Your task to perform on an android device: Search for razer kraken on bestbuy.com, select the first entry, and add it to the cart. Image 0: 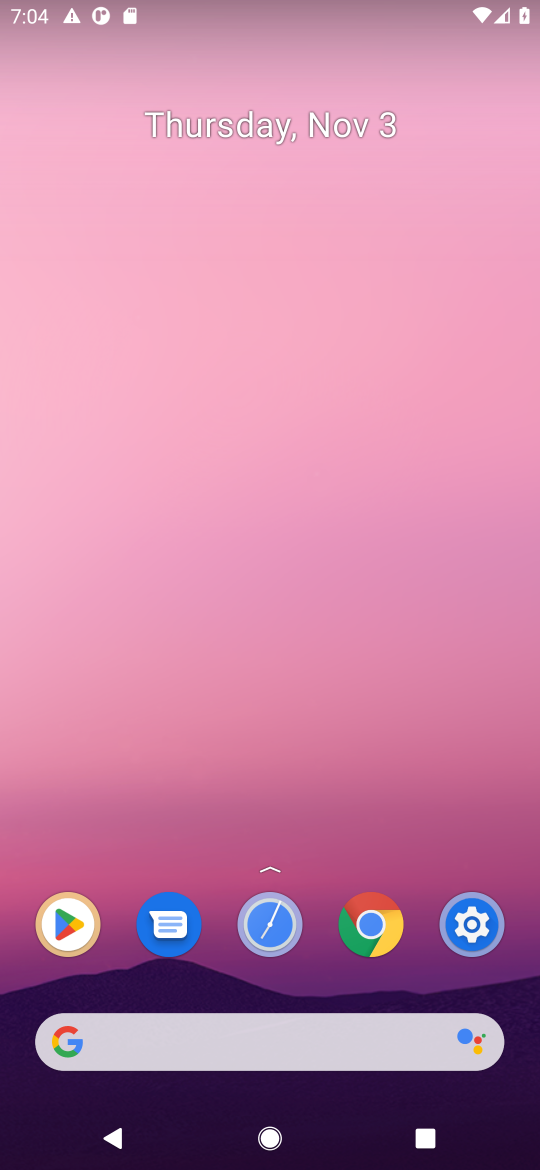
Step 0: click (270, 1036)
Your task to perform on an android device: Search for razer kraken on bestbuy.com, select the first entry, and add it to the cart. Image 1: 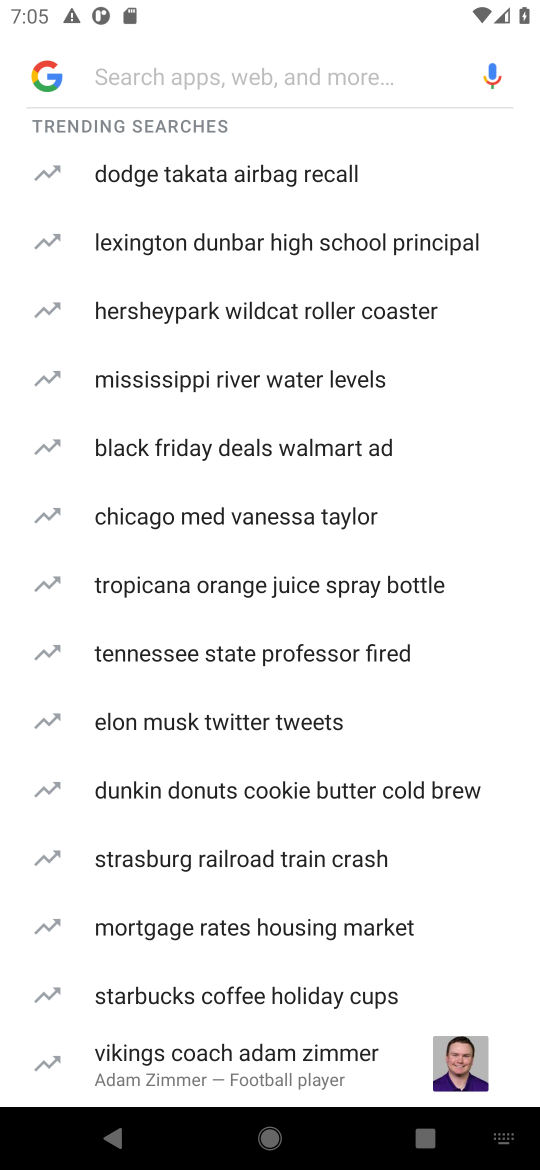
Step 1: type "bestbuy.com"
Your task to perform on an android device: Search for razer kraken on bestbuy.com, select the first entry, and add it to the cart. Image 2: 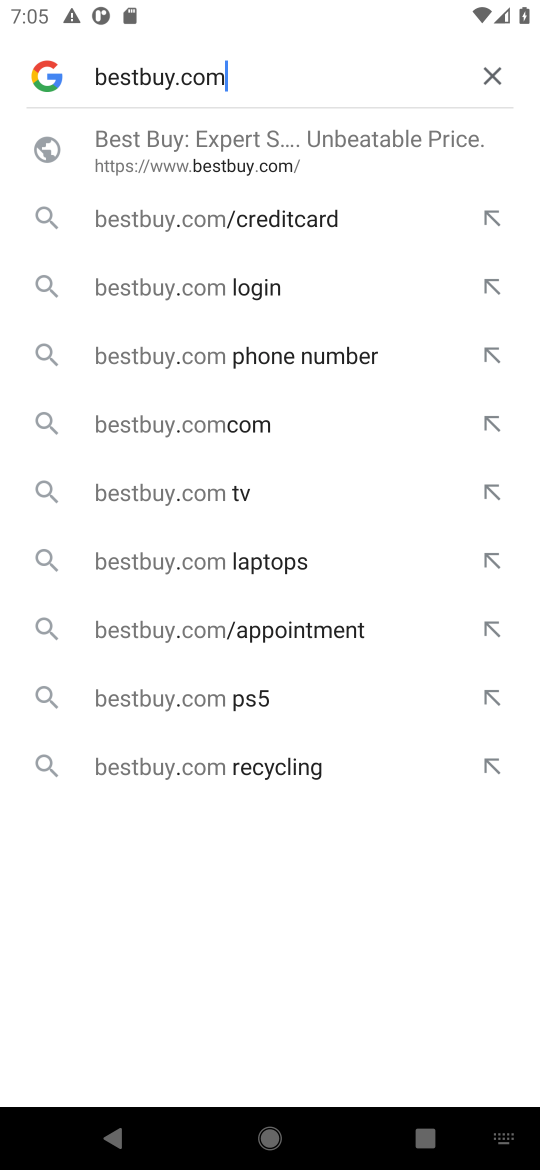
Step 2: click (215, 140)
Your task to perform on an android device: Search for razer kraken on bestbuy.com, select the first entry, and add it to the cart. Image 3: 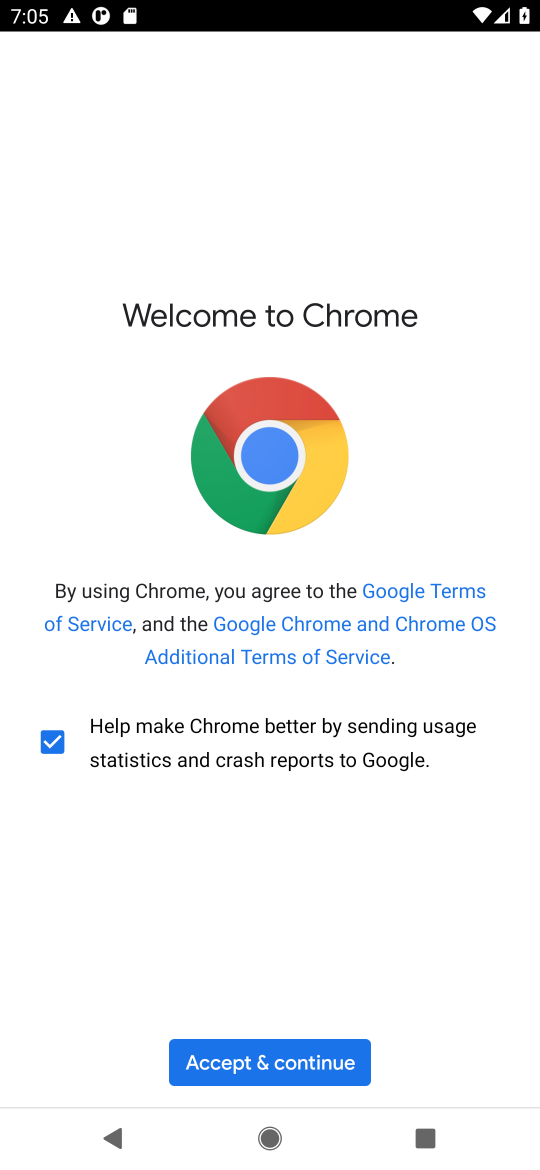
Step 3: click (304, 1071)
Your task to perform on an android device: Search for razer kraken on bestbuy.com, select the first entry, and add it to the cart. Image 4: 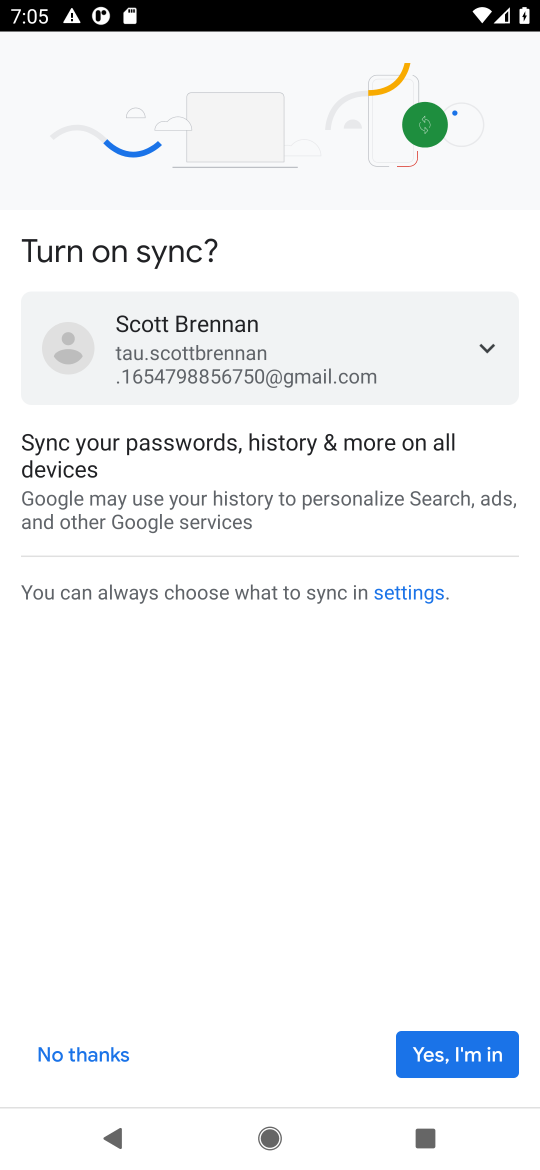
Step 4: click (455, 1056)
Your task to perform on an android device: Search for razer kraken on bestbuy.com, select the first entry, and add it to the cart. Image 5: 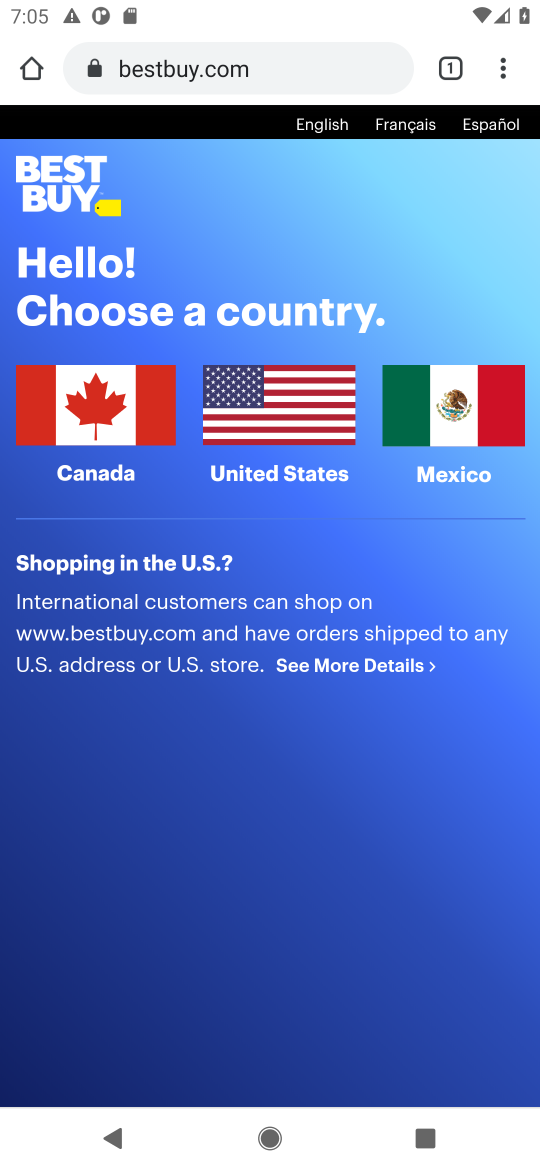
Step 5: click (271, 381)
Your task to perform on an android device: Search for razer kraken on bestbuy.com, select the first entry, and add it to the cart. Image 6: 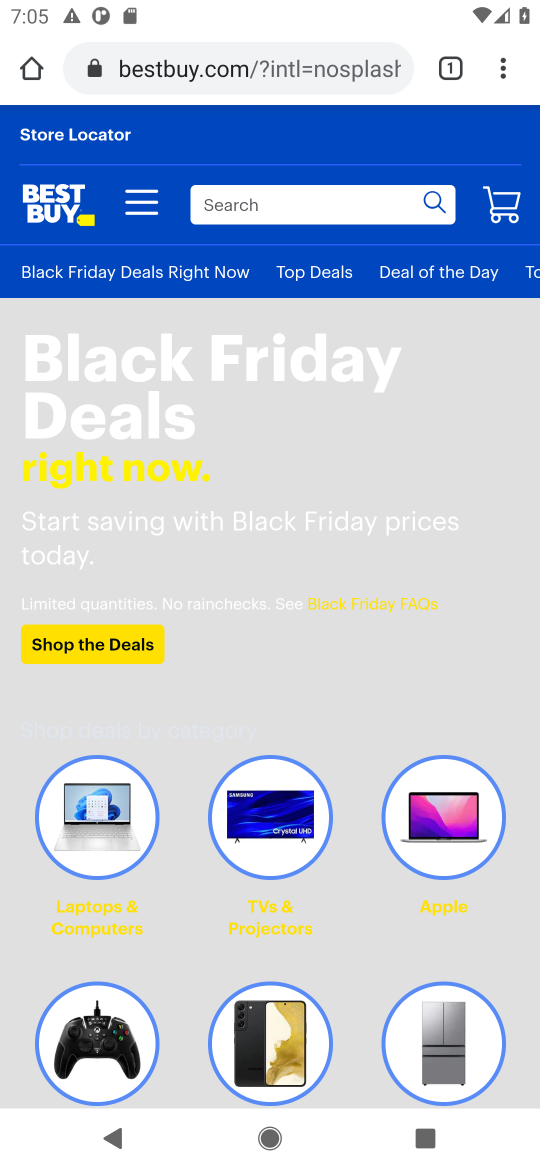
Step 6: click (313, 205)
Your task to perform on an android device: Search for razer kraken on bestbuy.com, select the first entry, and add it to the cart. Image 7: 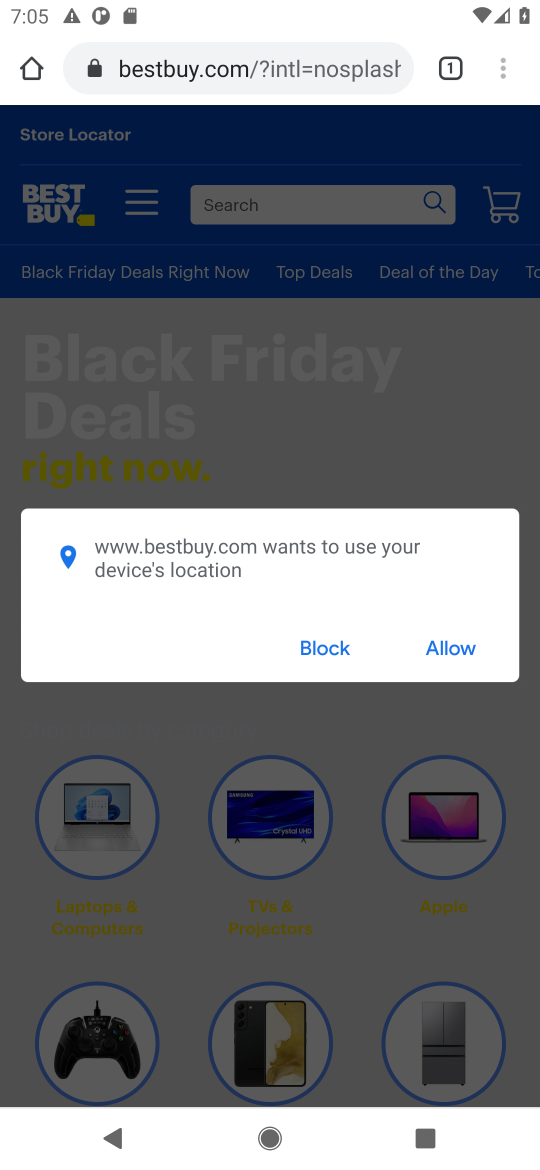
Step 7: click (449, 642)
Your task to perform on an android device: Search for razer kraken on bestbuy.com, select the first entry, and add it to the cart. Image 8: 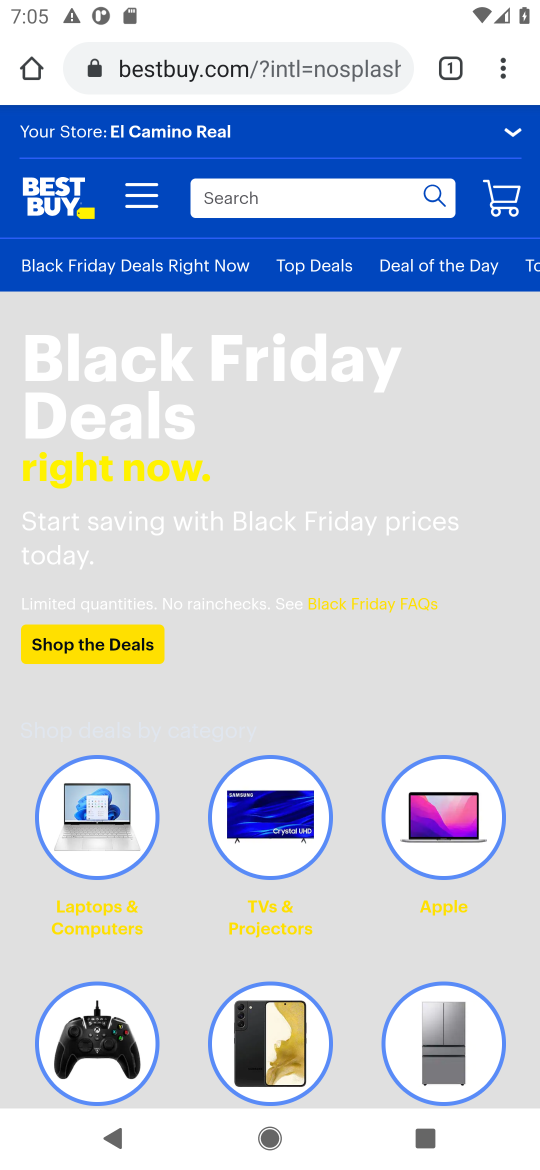
Step 8: click (263, 186)
Your task to perform on an android device: Search for razer kraken on bestbuy.com, select the first entry, and add it to the cart. Image 9: 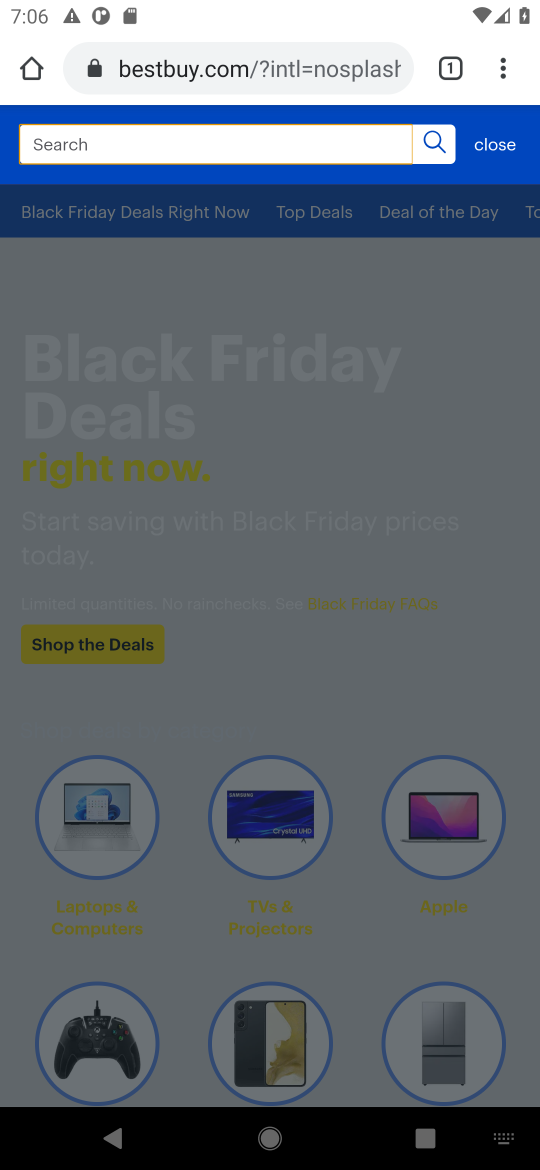
Step 9: type "razer kraken"
Your task to perform on an android device: Search for razer kraken on bestbuy.com, select the first entry, and add it to the cart. Image 10: 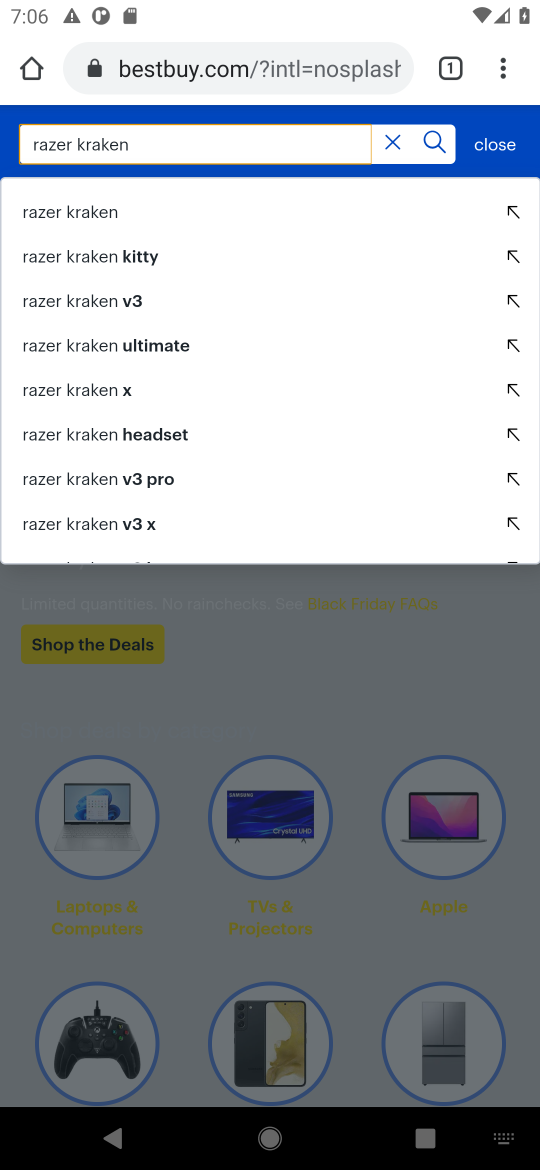
Step 10: click (114, 208)
Your task to perform on an android device: Search for razer kraken on bestbuy.com, select the first entry, and add it to the cart. Image 11: 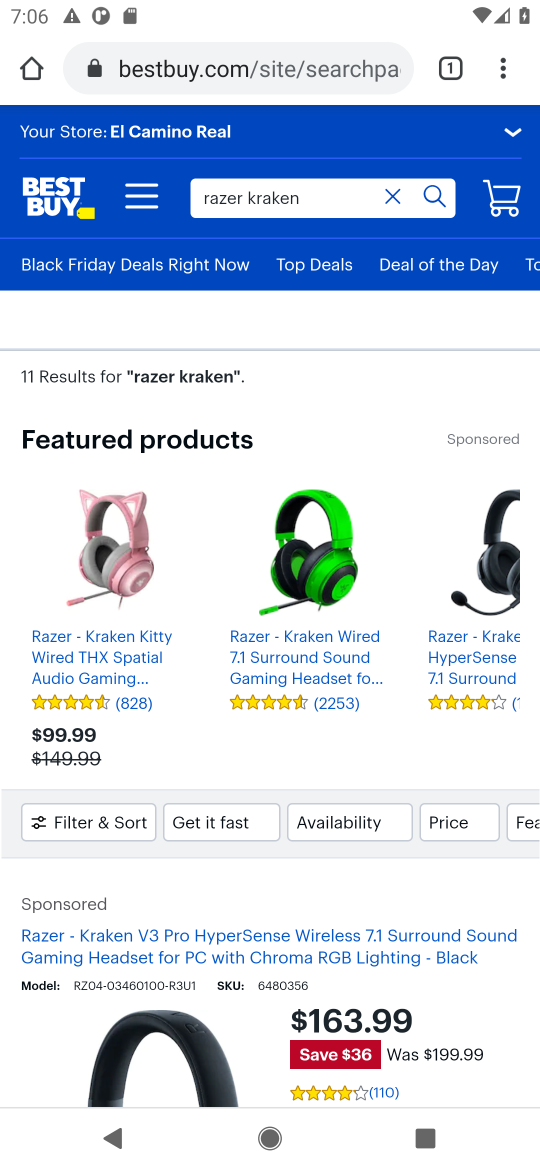
Step 11: drag from (386, 713) to (342, 330)
Your task to perform on an android device: Search for razer kraken on bestbuy.com, select the first entry, and add it to the cart. Image 12: 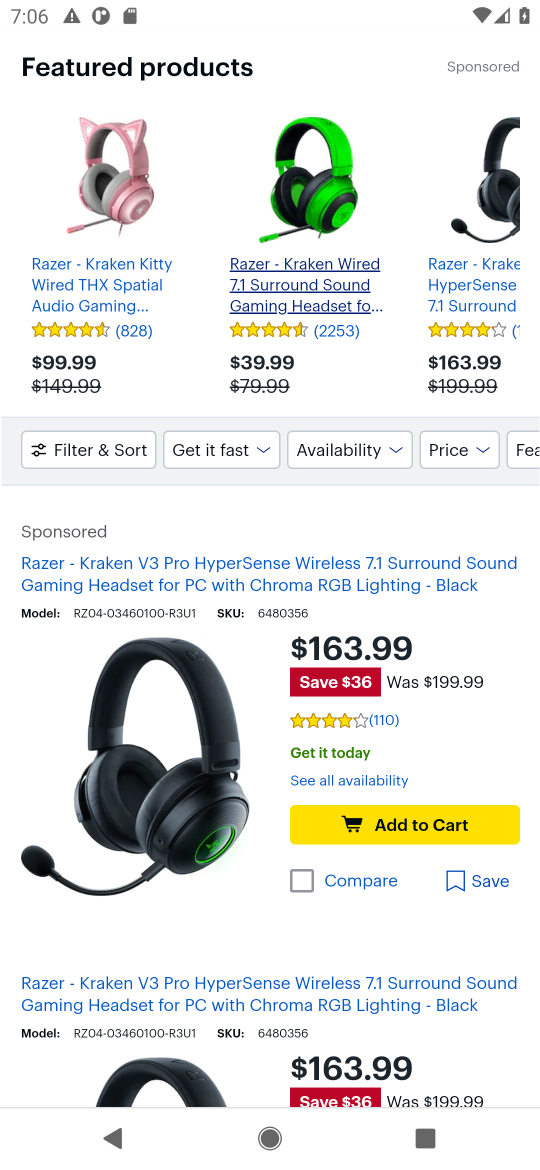
Step 12: drag from (410, 861) to (409, 533)
Your task to perform on an android device: Search for razer kraken on bestbuy.com, select the first entry, and add it to the cart. Image 13: 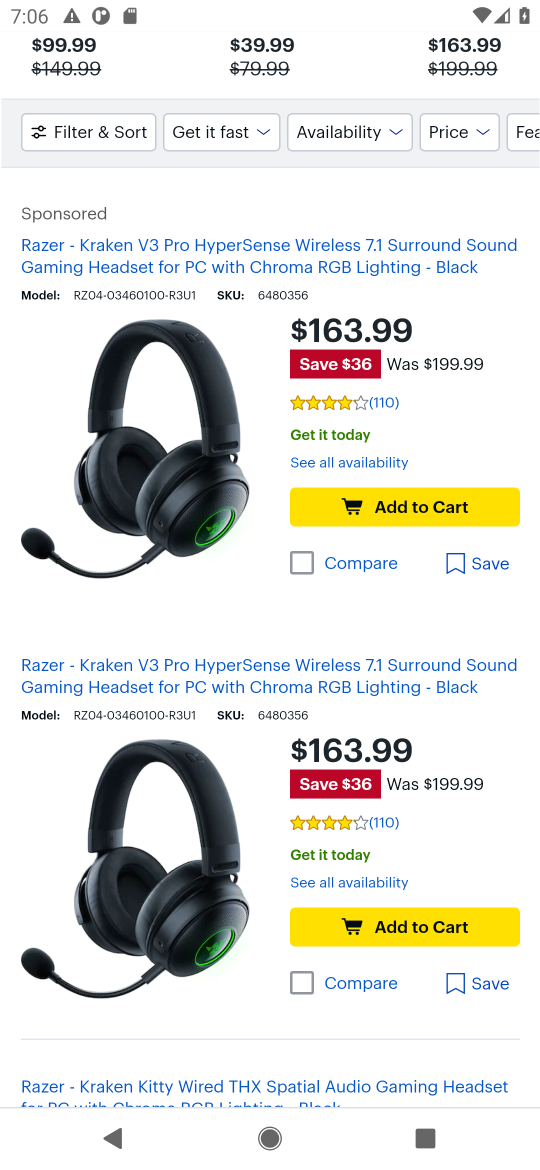
Step 13: click (412, 675)
Your task to perform on an android device: Search for razer kraken on bestbuy.com, select the first entry, and add it to the cart. Image 14: 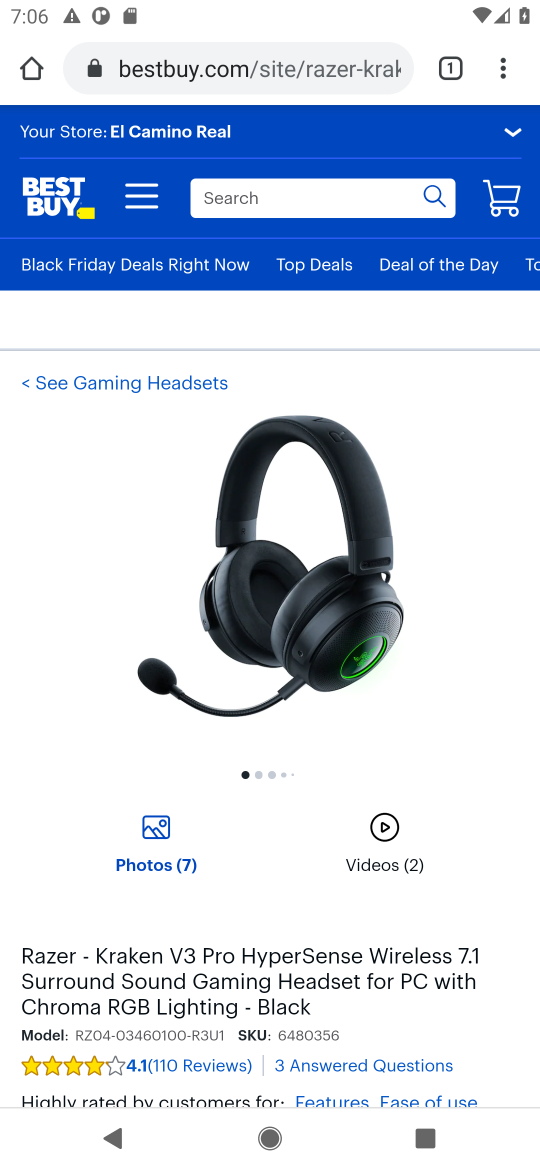
Step 14: drag from (483, 807) to (462, 512)
Your task to perform on an android device: Search for razer kraken on bestbuy.com, select the first entry, and add it to the cart. Image 15: 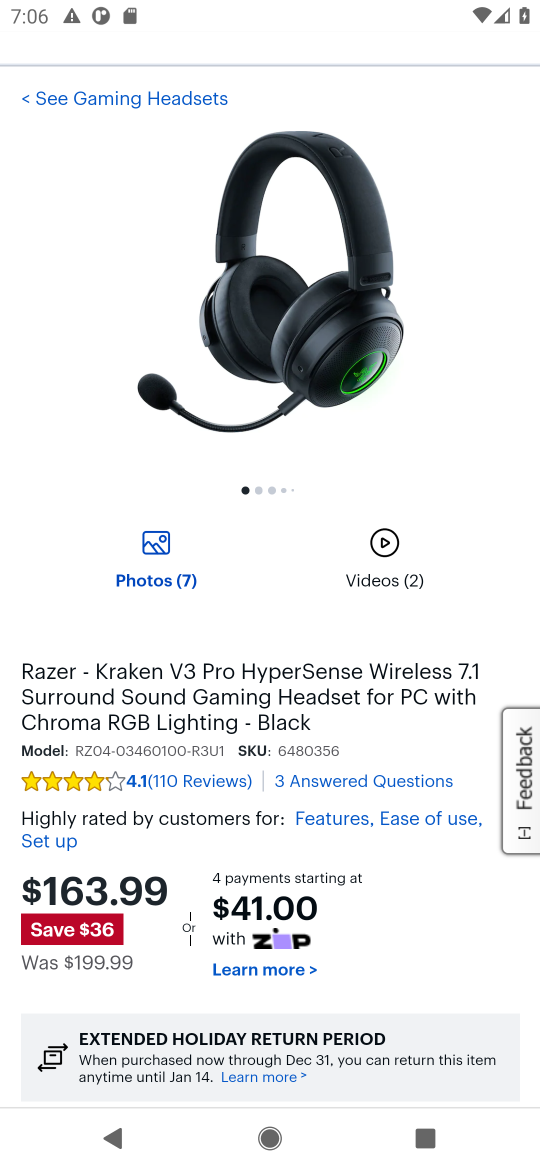
Step 15: drag from (394, 937) to (361, 528)
Your task to perform on an android device: Search for razer kraken on bestbuy.com, select the first entry, and add it to the cart. Image 16: 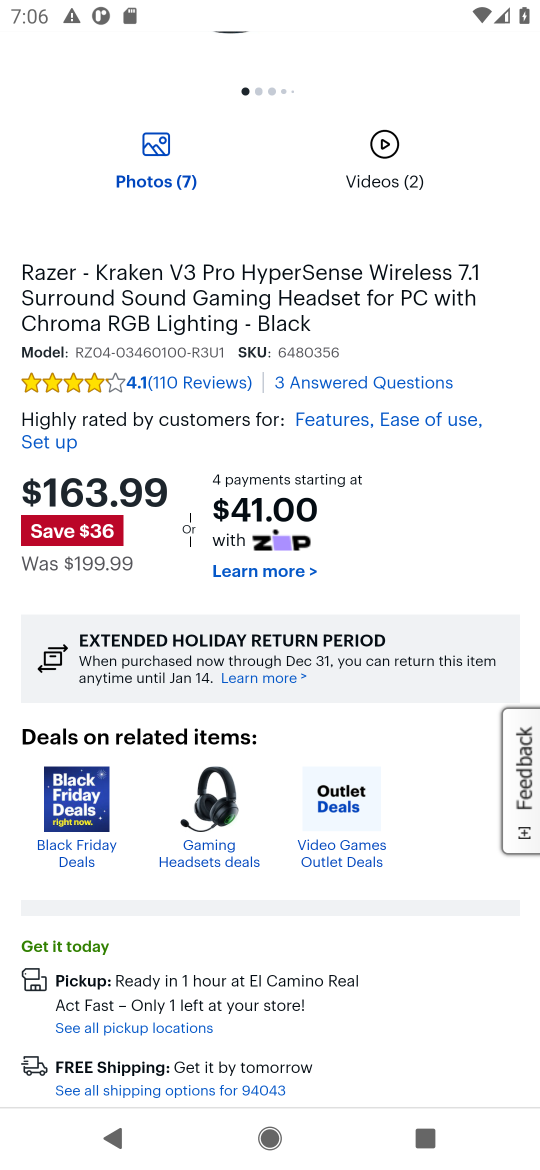
Step 16: drag from (404, 965) to (409, 448)
Your task to perform on an android device: Search for razer kraken on bestbuy.com, select the first entry, and add it to the cart. Image 17: 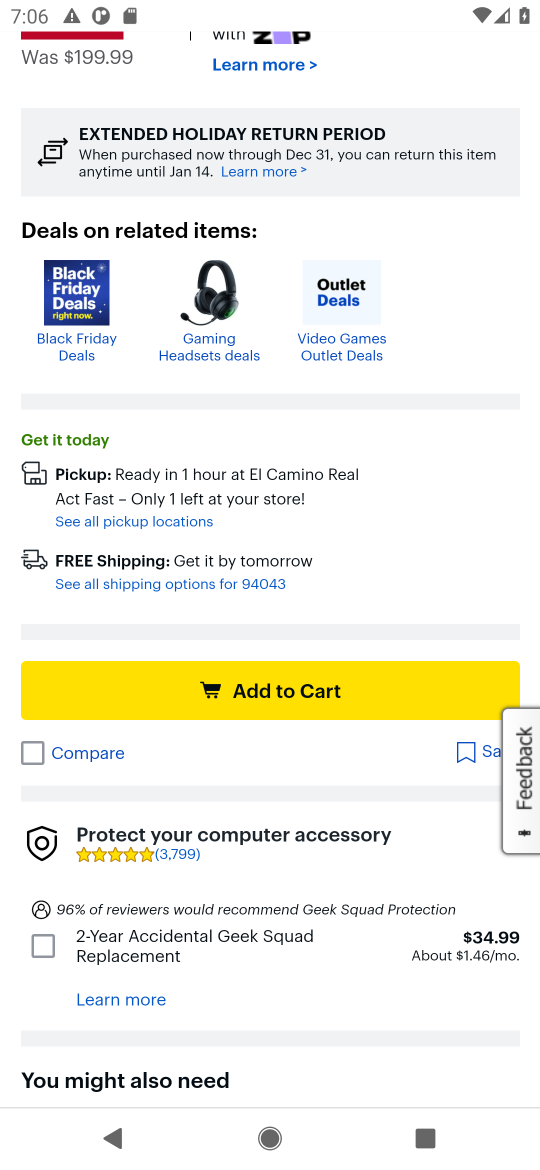
Step 17: click (260, 693)
Your task to perform on an android device: Search for razer kraken on bestbuy.com, select the first entry, and add it to the cart. Image 18: 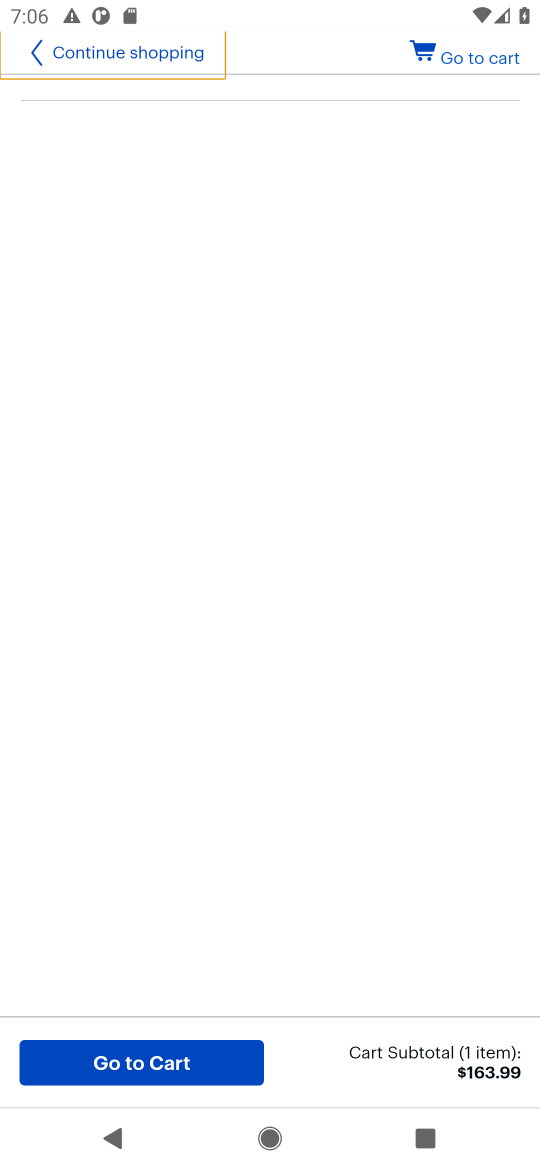
Step 18: click (520, 61)
Your task to perform on an android device: Search for razer kraken on bestbuy.com, select the first entry, and add it to the cart. Image 19: 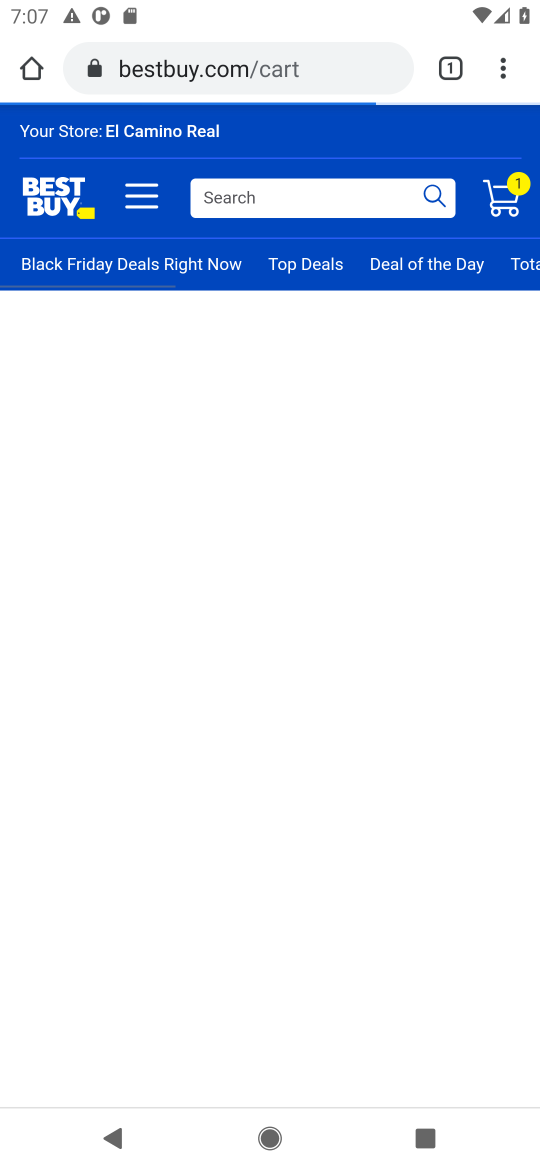
Step 19: click (159, 1058)
Your task to perform on an android device: Search for razer kraken on bestbuy.com, select the first entry, and add it to the cart. Image 20: 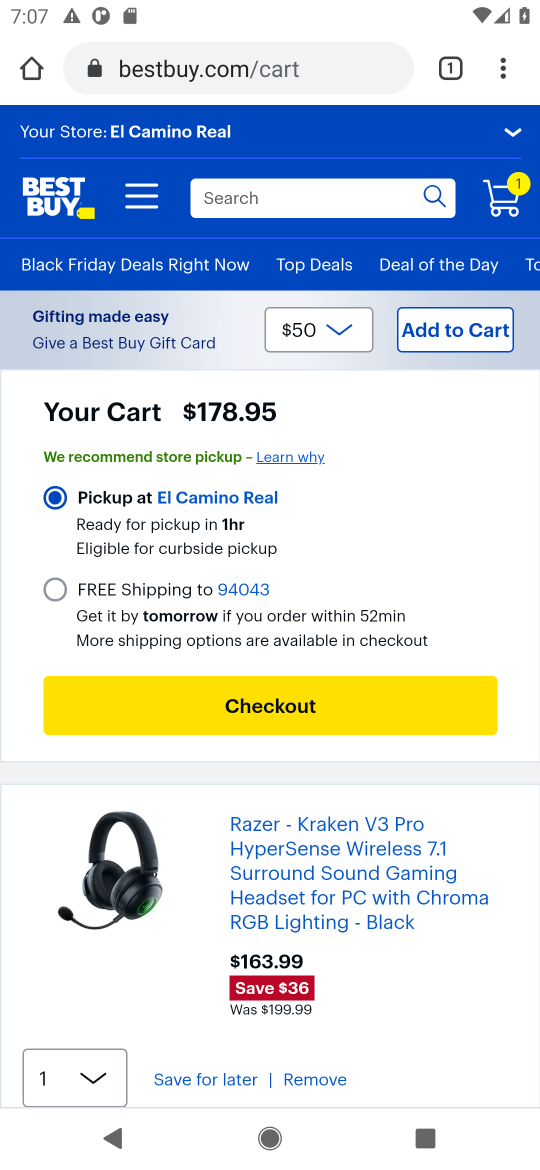
Step 20: task complete